Your task to perform on an android device: set default search engine in the chrome app Image 0: 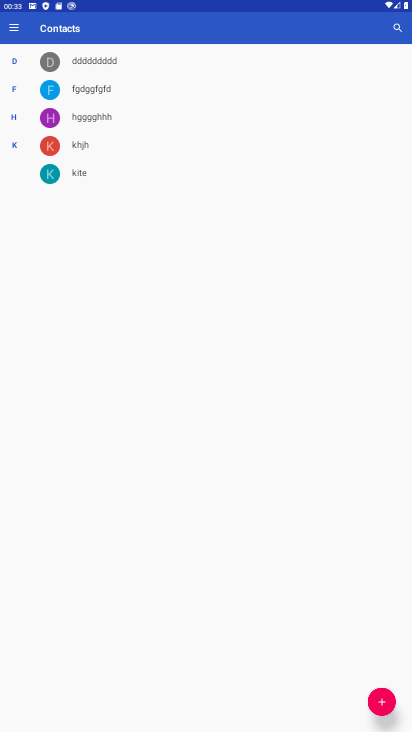
Step 0: press home button
Your task to perform on an android device: set default search engine in the chrome app Image 1: 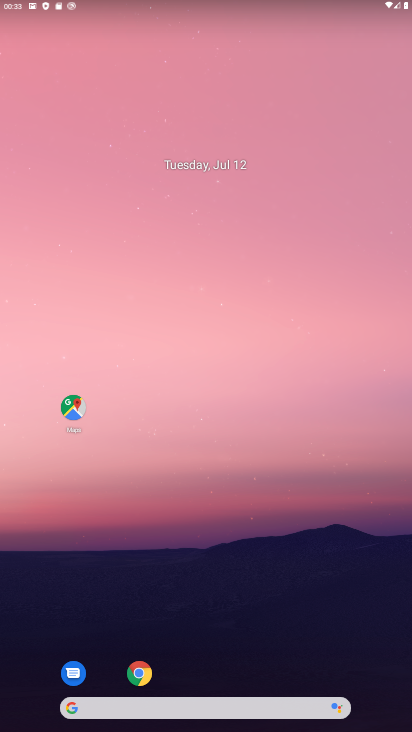
Step 1: drag from (263, 625) to (290, 8)
Your task to perform on an android device: set default search engine in the chrome app Image 2: 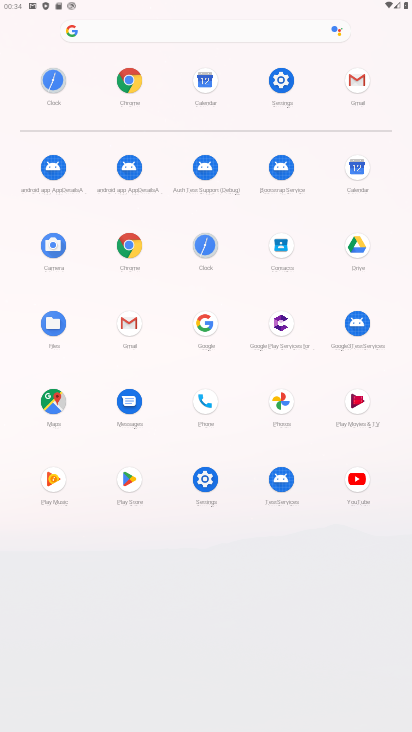
Step 2: click (358, 486)
Your task to perform on an android device: set default search engine in the chrome app Image 3: 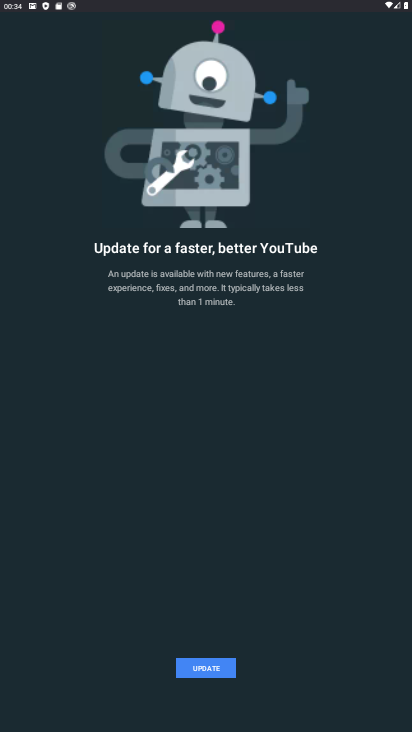
Step 3: click (215, 670)
Your task to perform on an android device: set default search engine in the chrome app Image 4: 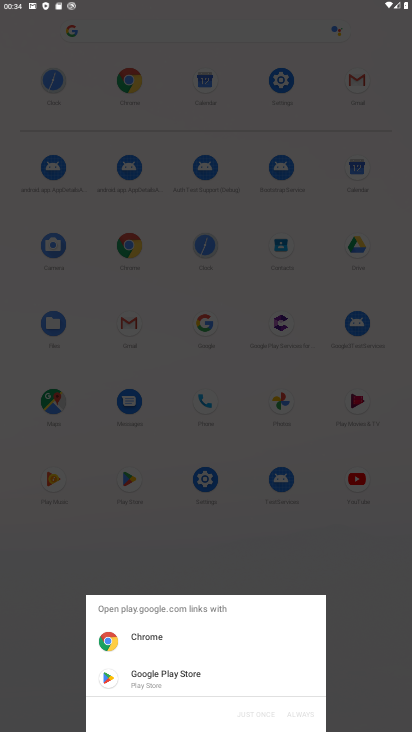
Step 4: press home button
Your task to perform on an android device: set default search engine in the chrome app Image 5: 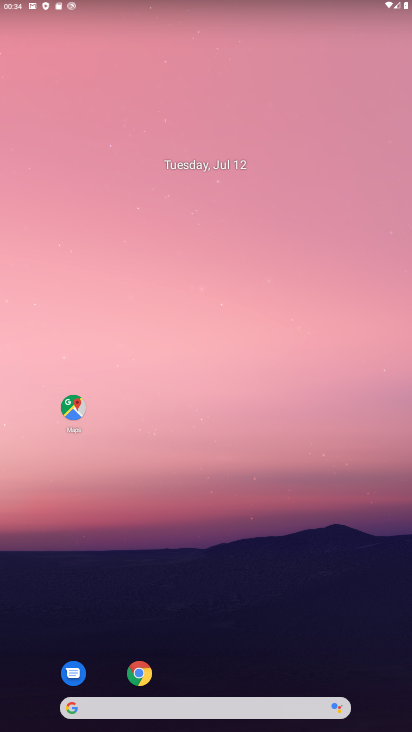
Step 5: drag from (257, 629) to (368, 3)
Your task to perform on an android device: set default search engine in the chrome app Image 6: 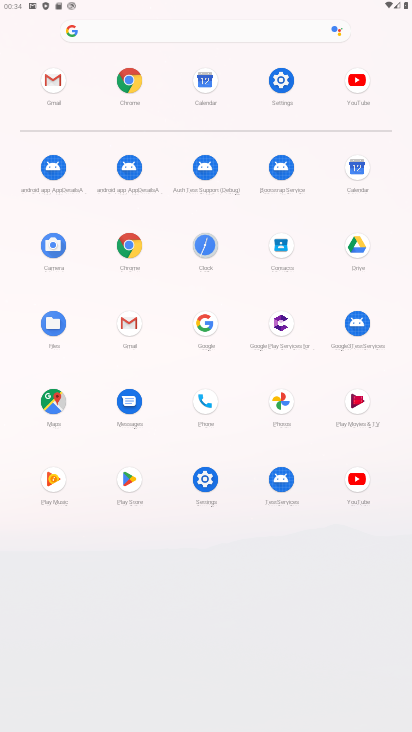
Step 6: click (131, 242)
Your task to perform on an android device: set default search engine in the chrome app Image 7: 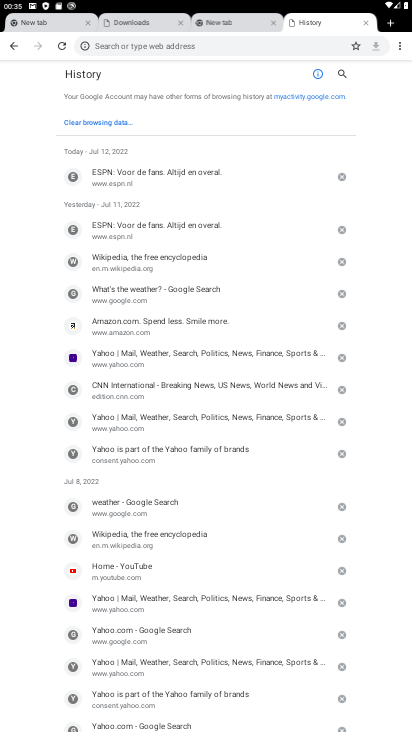
Step 7: drag from (396, 48) to (303, 214)
Your task to perform on an android device: set default search engine in the chrome app Image 8: 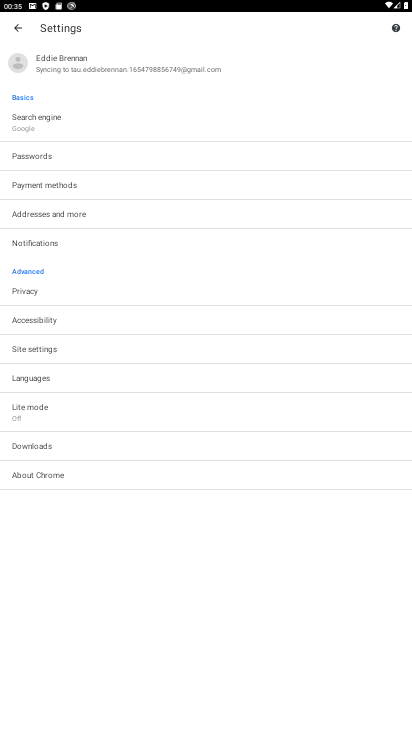
Step 8: click (42, 118)
Your task to perform on an android device: set default search engine in the chrome app Image 9: 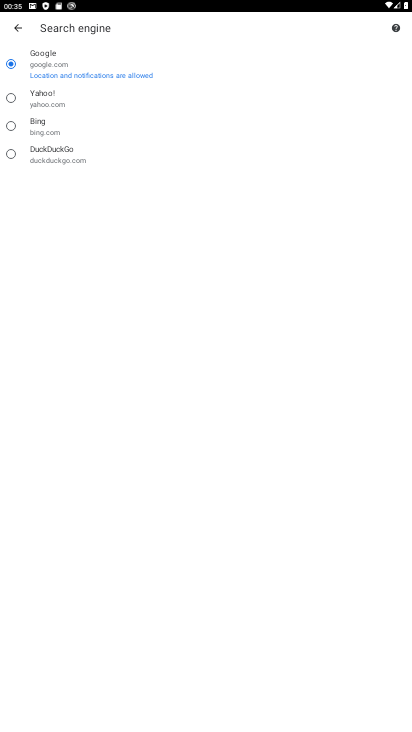
Step 9: click (51, 62)
Your task to perform on an android device: set default search engine in the chrome app Image 10: 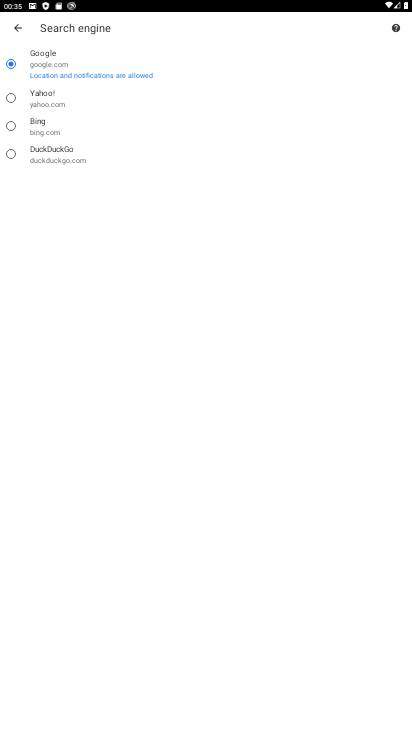
Step 10: task complete